Your task to perform on an android device: allow cookies in the chrome app Image 0: 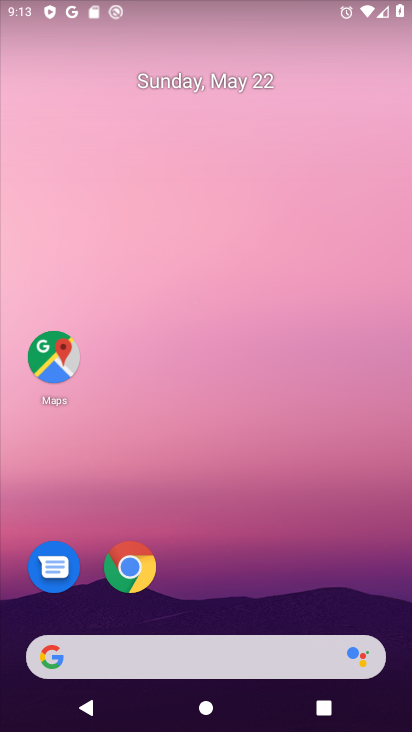
Step 0: click (136, 563)
Your task to perform on an android device: allow cookies in the chrome app Image 1: 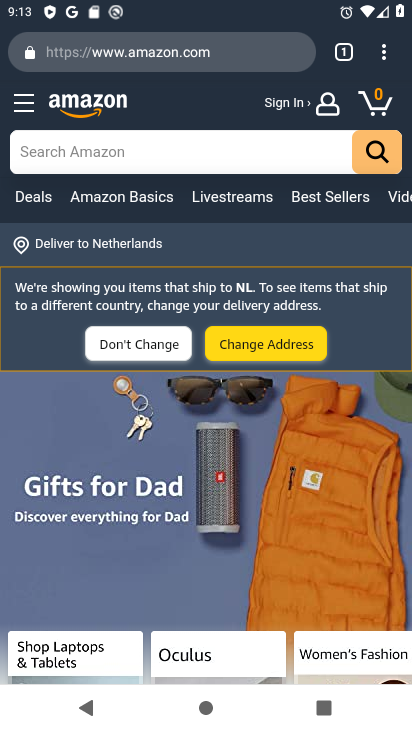
Step 1: click (389, 52)
Your task to perform on an android device: allow cookies in the chrome app Image 2: 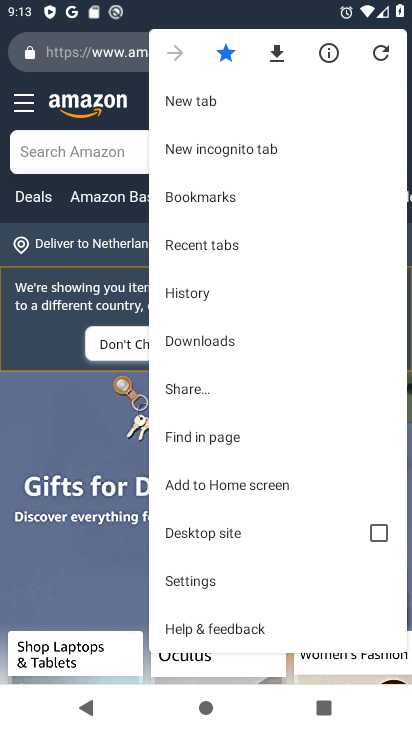
Step 2: click (206, 584)
Your task to perform on an android device: allow cookies in the chrome app Image 3: 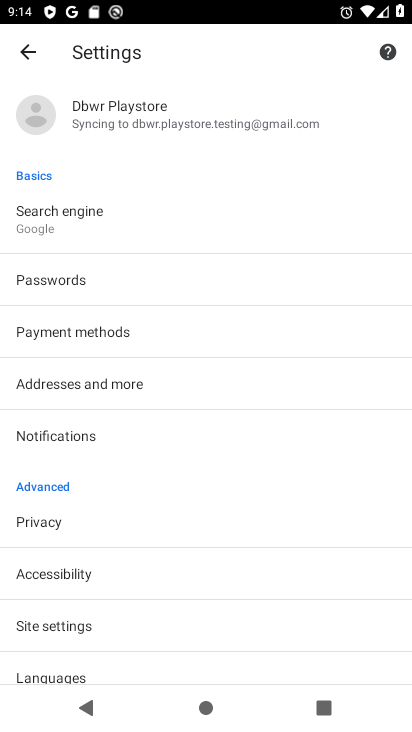
Step 3: click (72, 627)
Your task to perform on an android device: allow cookies in the chrome app Image 4: 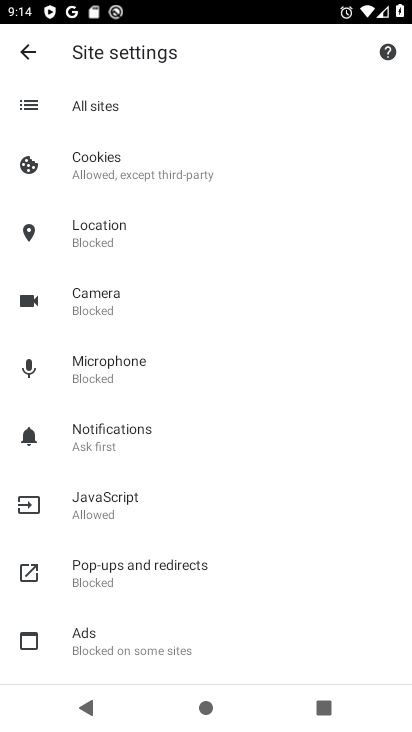
Step 4: click (154, 168)
Your task to perform on an android device: allow cookies in the chrome app Image 5: 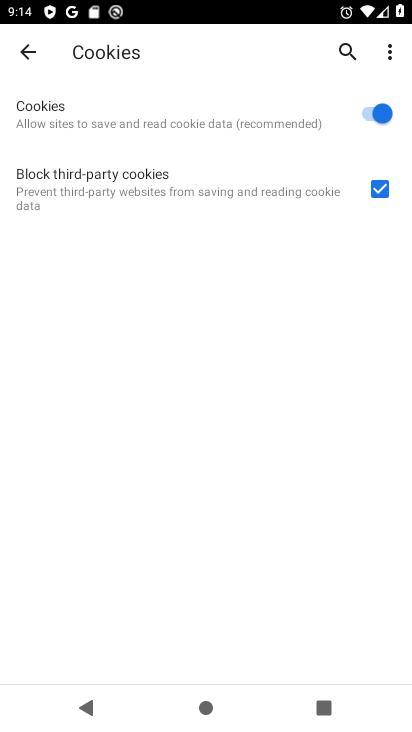
Step 5: task complete